Your task to perform on an android device: toggle notification dots Image 0: 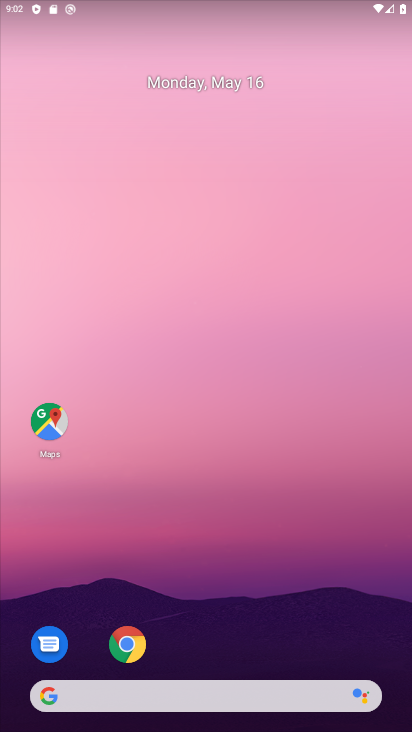
Step 0: drag from (138, 729) to (325, 66)
Your task to perform on an android device: toggle notification dots Image 1: 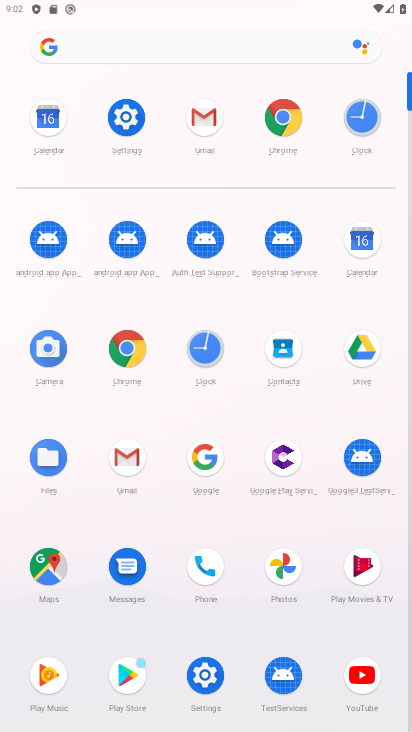
Step 1: click (121, 134)
Your task to perform on an android device: toggle notification dots Image 2: 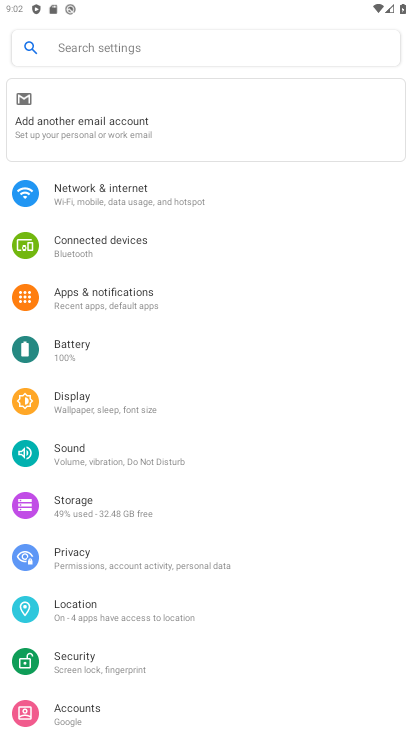
Step 2: click (144, 294)
Your task to perform on an android device: toggle notification dots Image 3: 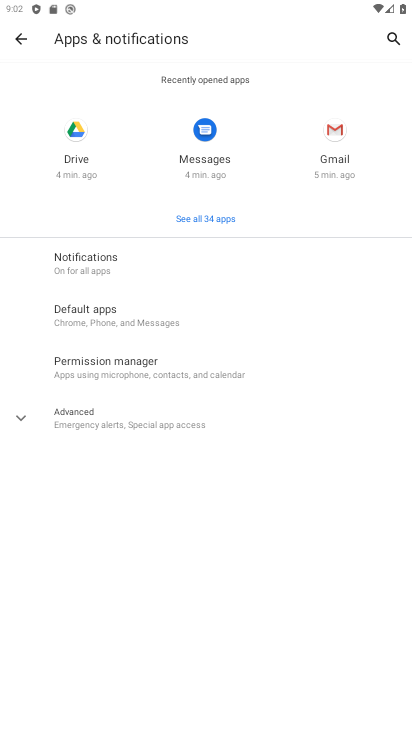
Step 3: click (136, 259)
Your task to perform on an android device: toggle notification dots Image 4: 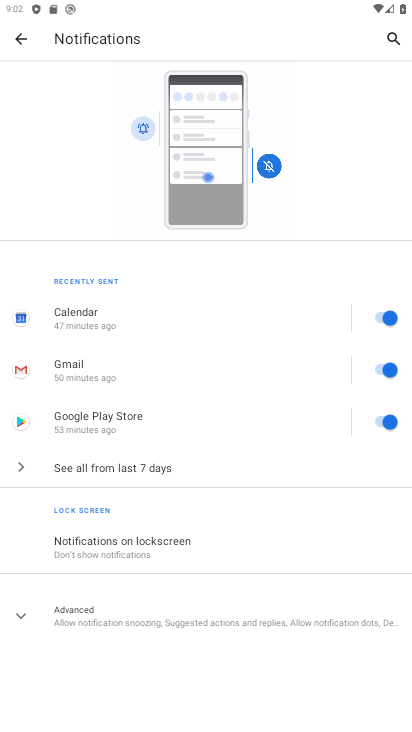
Step 4: click (173, 616)
Your task to perform on an android device: toggle notification dots Image 5: 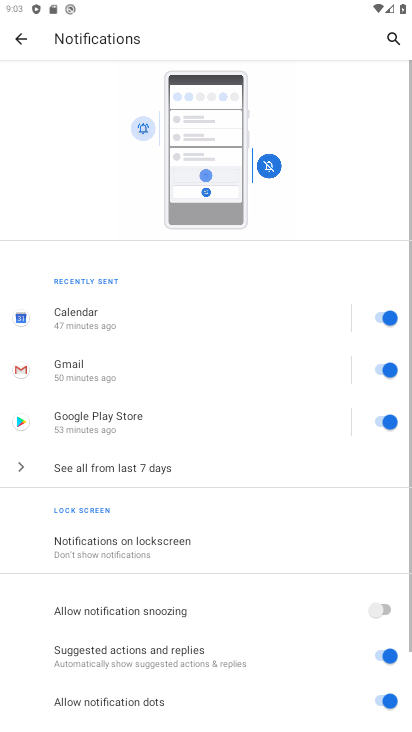
Step 5: drag from (243, 594) to (217, 141)
Your task to perform on an android device: toggle notification dots Image 6: 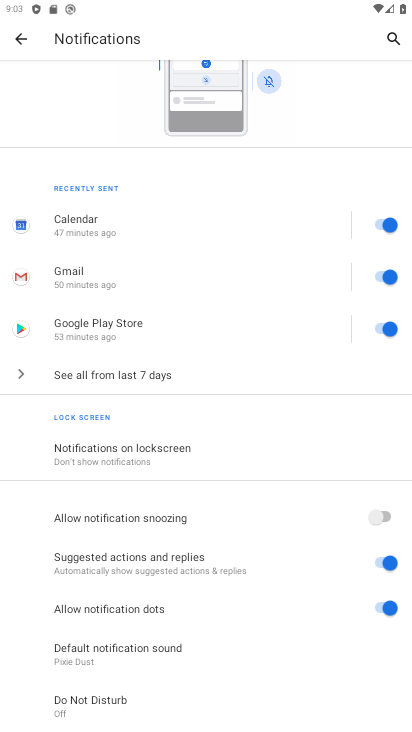
Step 6: click (383, 601)
Your task to perform on an android device: toggle notification dots Image 7: 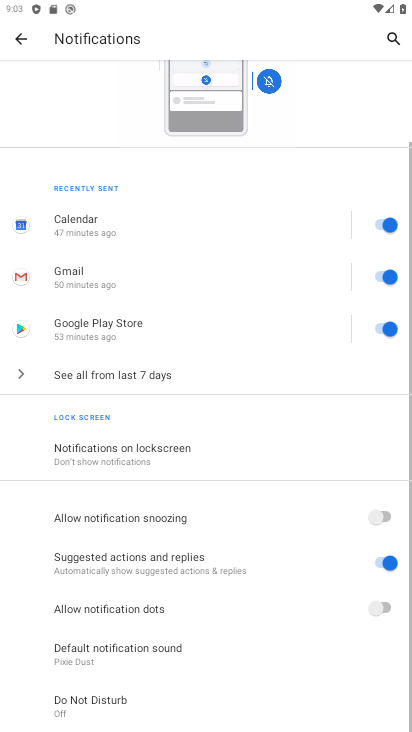
Step 7: task complete